Your task to perform on an android device: Open the phone app and click the voicemail tab. Image 0: 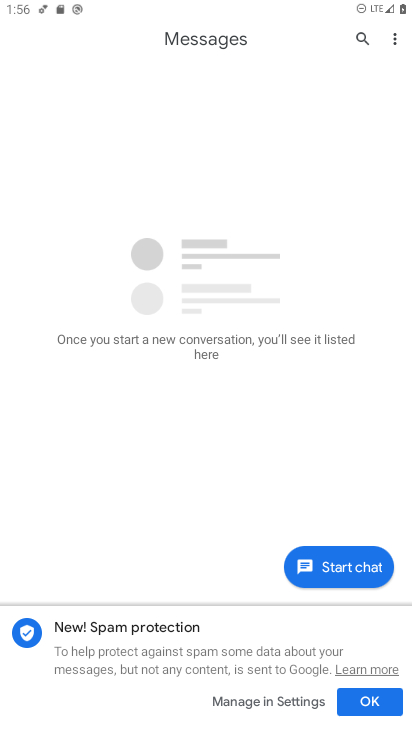
Step 0: press home button
Your task to perform on an android device: Open the phone app and click the voicemail tab. Image 1: 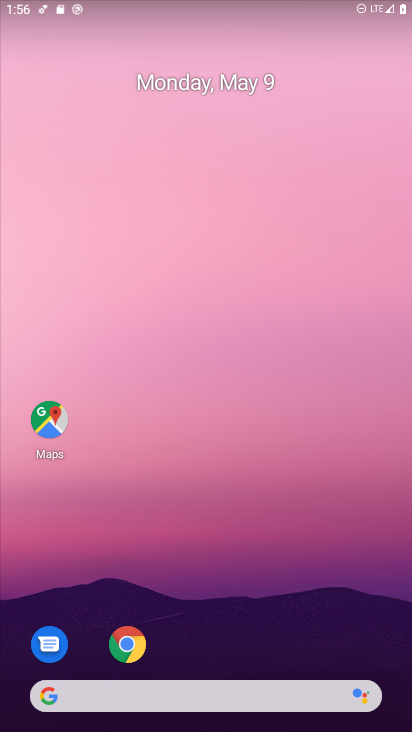
Step 1: drag from (207, 636) to (244, 169)
Your task to perform on an android device: Open the phone app and click the voicemail tab. Image 2: 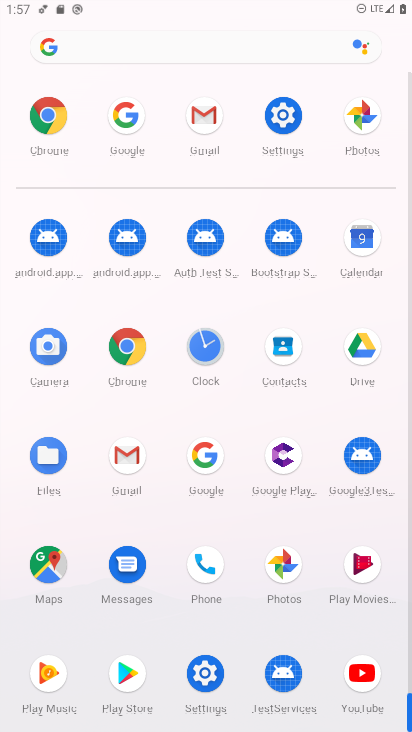
Step 2: click (211, 575)
Your task to perform on an android device: Open the phone app and click the voicemail tab. Image 3: 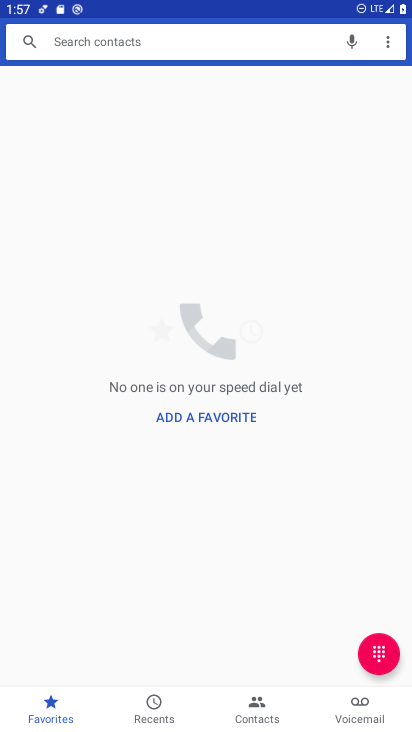
Step 3: click (364, 710)
Your task to perform on an android device: Open the phone app and click the voicemail tab. Image 4: 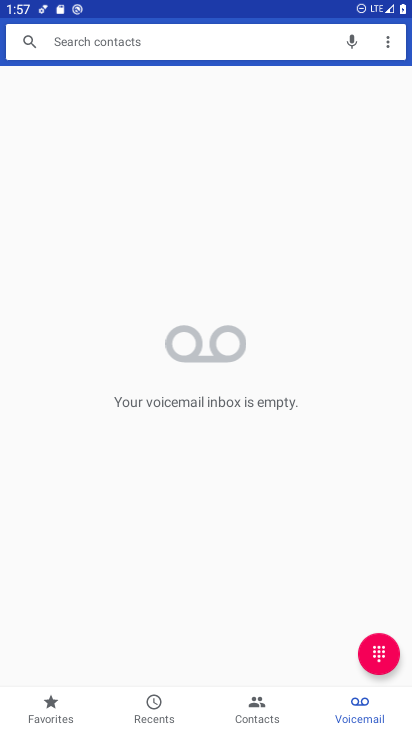
Step 4: task complete